Your task to perform on an android device: Do I have any events this weekend? Image 0: 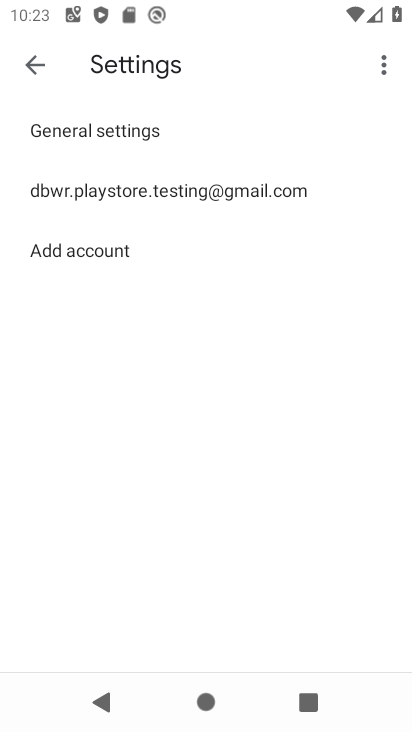
Step 0: press back button
Your task to perform on an android device: Do I have any events this weekend? Image 1: 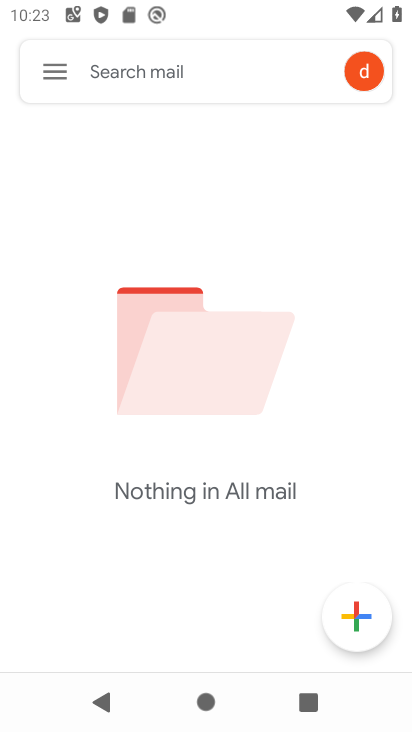
Step 1: press back button
Your task to perform on an android device: Do I have any events this weekend? Image 2: 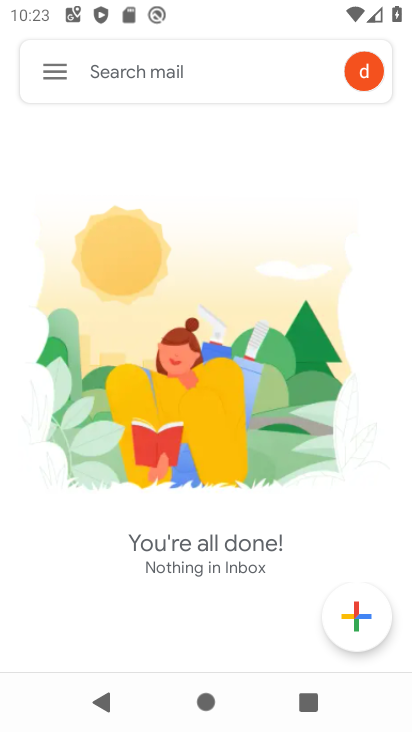
Step 2: press back button
Your task to perform on an android device: Do I have any events this weekend? Image 3: 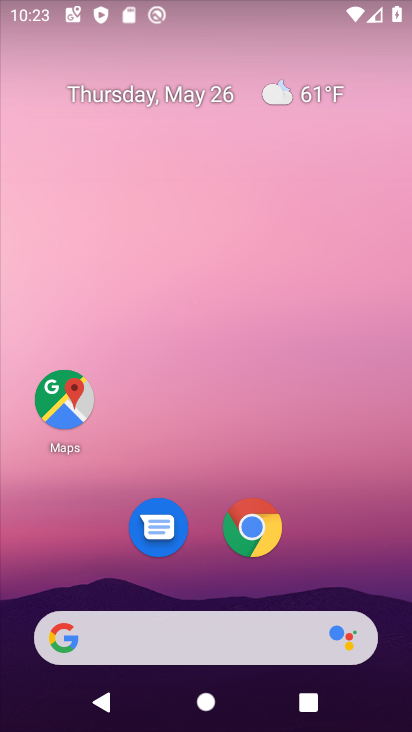
Step 3: drag from (246, 413) to (273, 75)
Your task to perform on an android device: Do I have any events this weekend? Image 4: 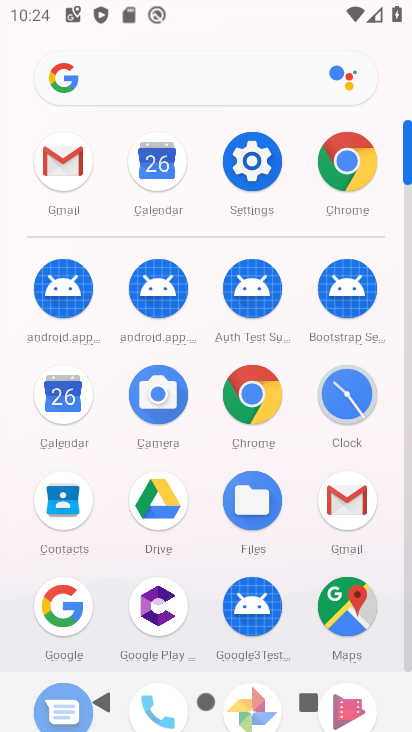
Step 4: click (154, 154)
Your task to perform on an android device: Do I have any events this weekend? Image 5: 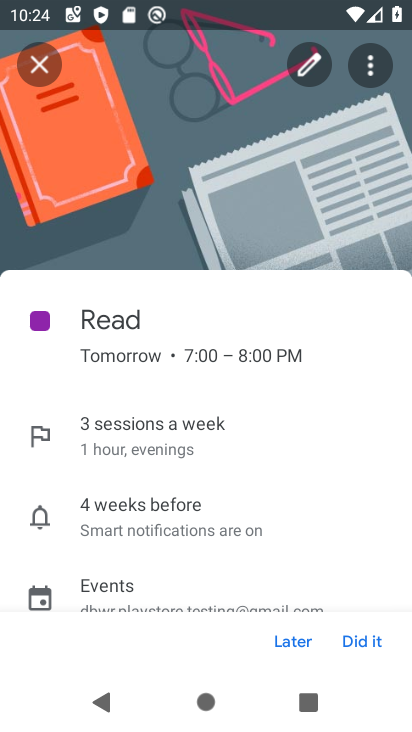
Step 5: click (295, 639)
Your task to perform on an android device: Do I have any events this weekend? Image 6: 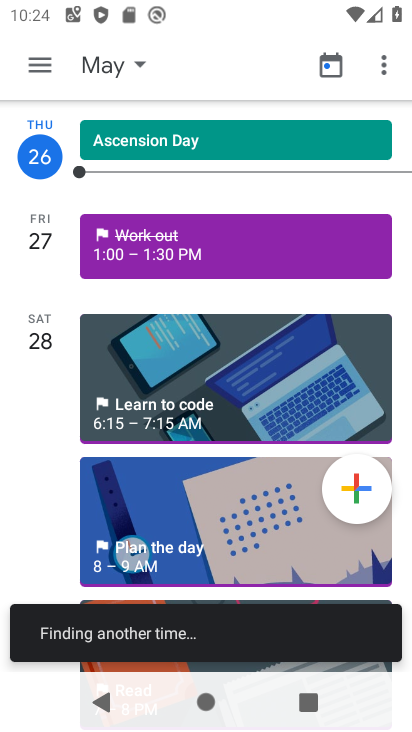
Step 6: drag from (220, 591) to (255, 236)
Your task to perform on an android device: Do I have any events this weekend? Image 7: 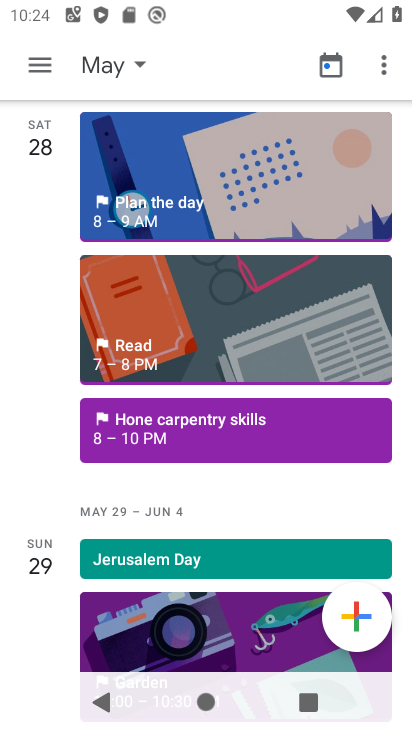
Step 7: click (120, 564)
Your task to perform on an android device: Do I have any events this weekend? Image 8: 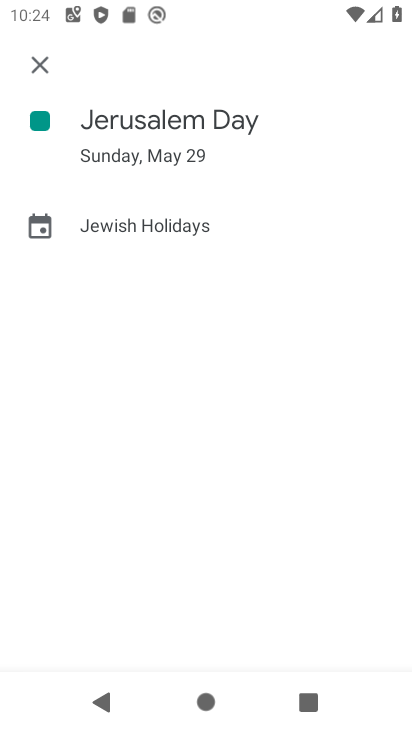
Step 8: task complete